Your task to perform on an android device: Show me popular videos on Youtube Image 0: 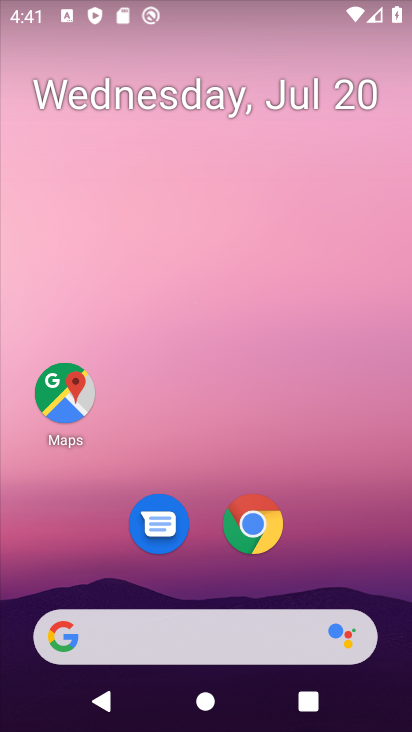
Step 0: drag from (226, 441) to (264, 1)
Your task to perform on an android device: Show me popular videos on Youtube Image 1: 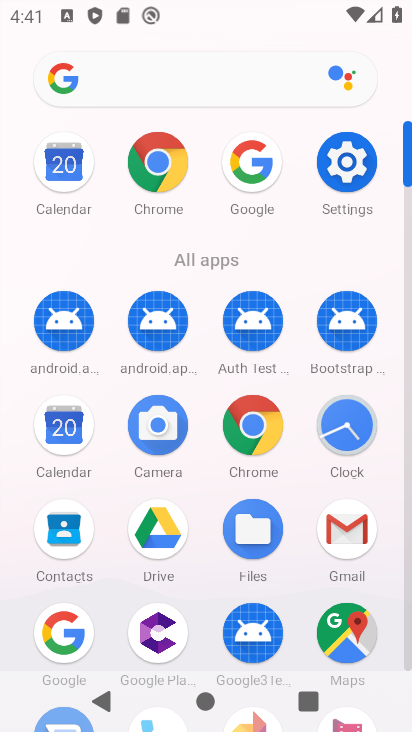
Step 1: drag from (210, 538) to (238, 190)
Your task to perform on an android device: Show me popular videos on Youtube Image 2: 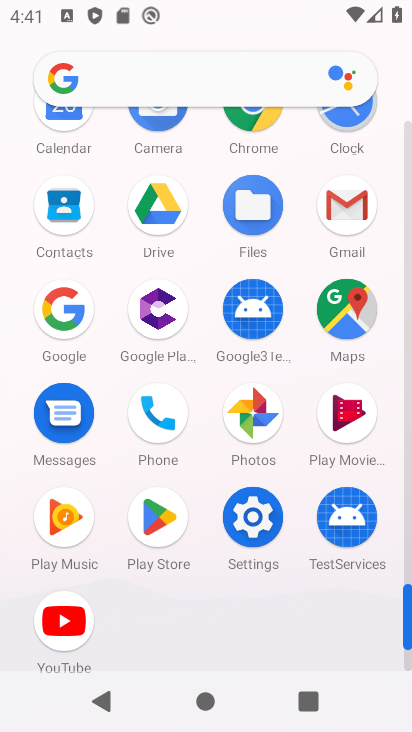
Step 2: click (66, 606)
Your task to perform on an android device: Show me popular videos on Youtube Image 3: 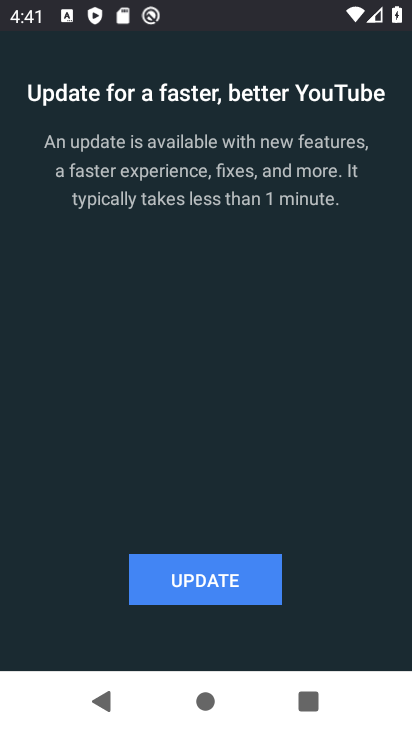
Step 3: click (262, 591)
Your task to perform on an android device: Show me popular videos on Youtube Image 4: 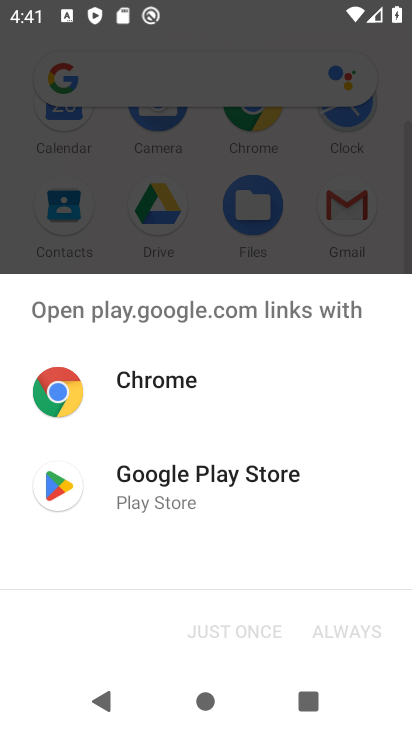
Step 4: click (160, 469)
Your task to perform on an android device: Show me popular videos on Youtube Image 5: 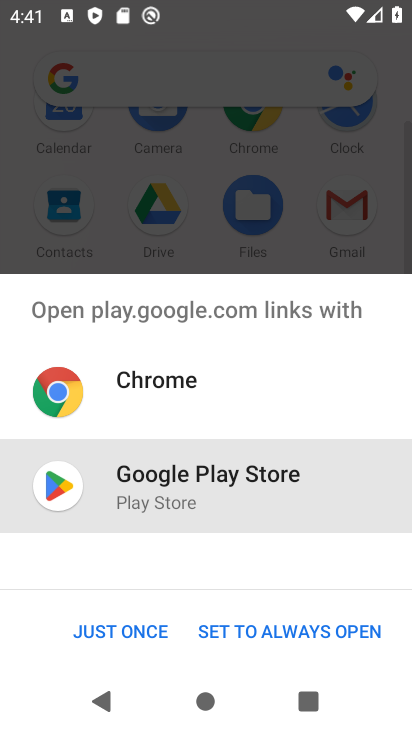
Step 5: click (138, 626)
Your task to perform on an android device: Show me popular videos on Youtube Image 6: 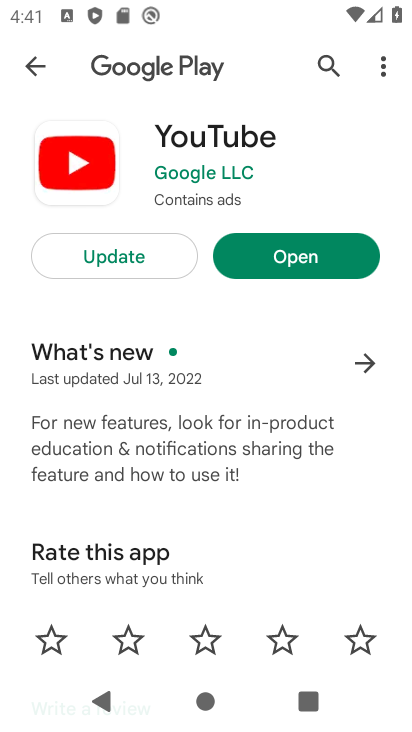
Step 6: click (132, 258)
Your task to perform on an android device: Show me popular videos on Youtube Image 7: 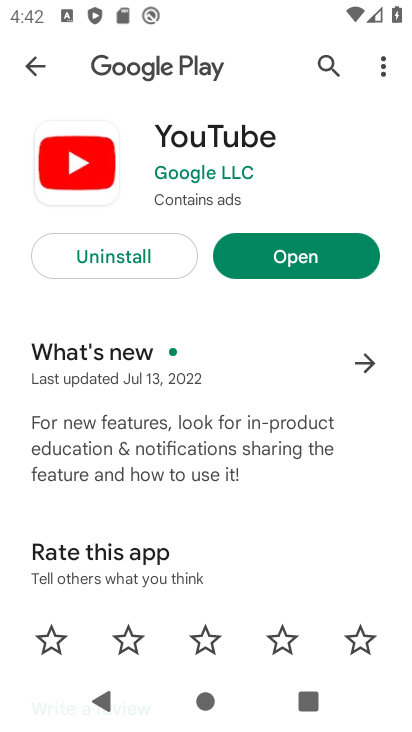
Step 7: click (257, 251)
Your task to perform on an android device: Show me popular videos on Youtube Image 8: 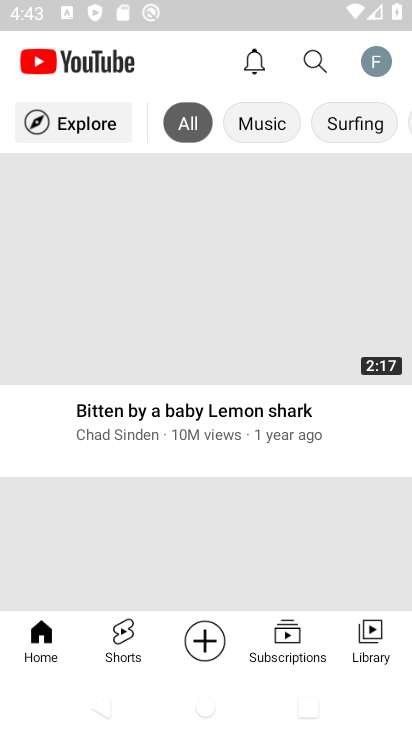
Step 8: click (316, 58)
Your task to perform on an android device: Show me popular videos on Youtube Image 9: 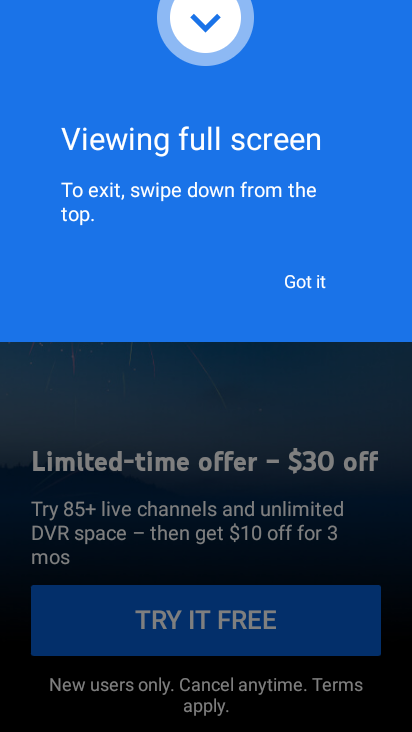
Step 9: click (319, 280)
Your task to perform on an android device: Show me popular videos on Youtube Image 10: 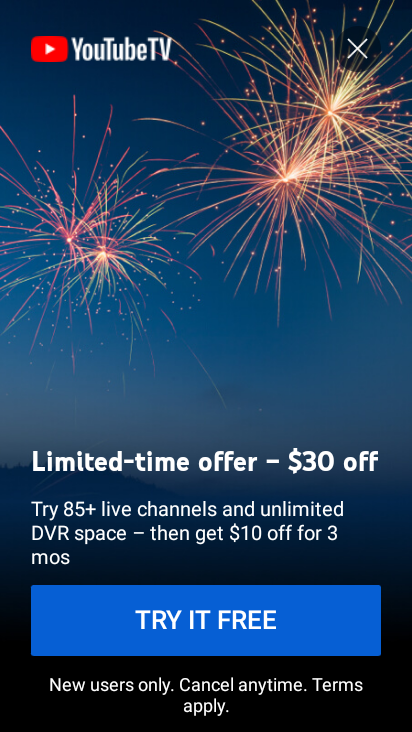
Step 10: click (309, 603)
Your task to perform on an android device: Show me popular videos on Youtube Image 11: 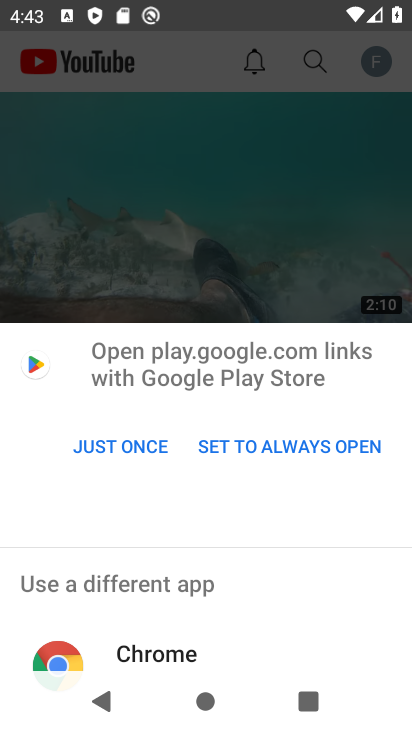
Step 11: click (180, 245)
Your task to perform on an android device: Show me popular videos on Youtube Image 12: 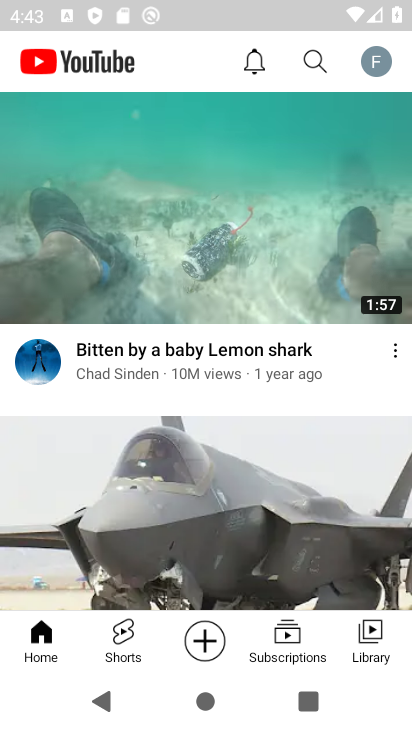
Step 12: click (316, 58)
Your task to perform on an android device: Show me popular videos on Youtube Image 13: 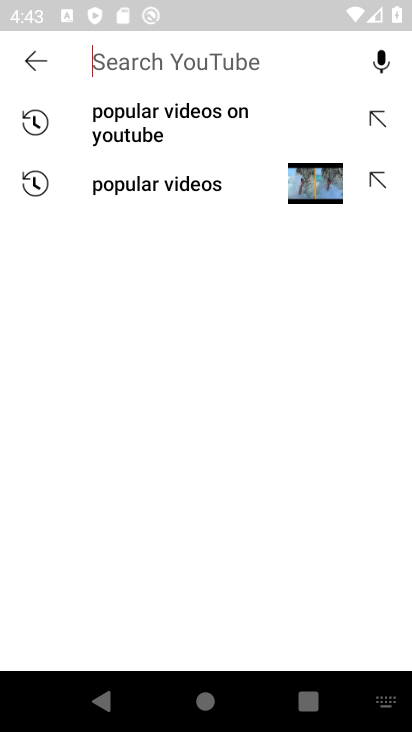
Step 13: click (169, 131)
Your task to perform on an android device: Show me popular videos on Youtube Image 14: 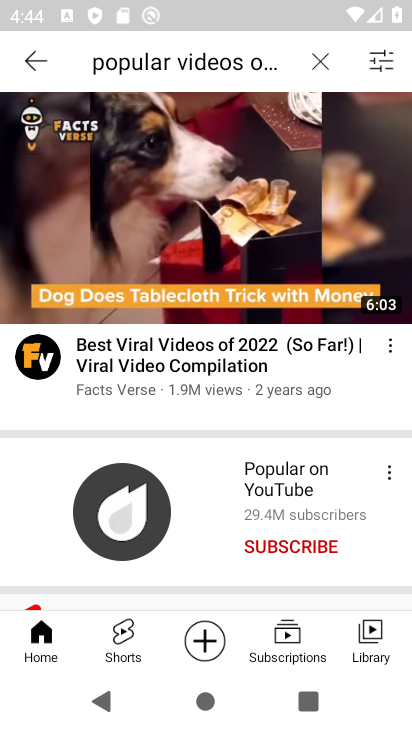
Step 14: task complete